Your task to perform on an android device: turn on location history Image 0: 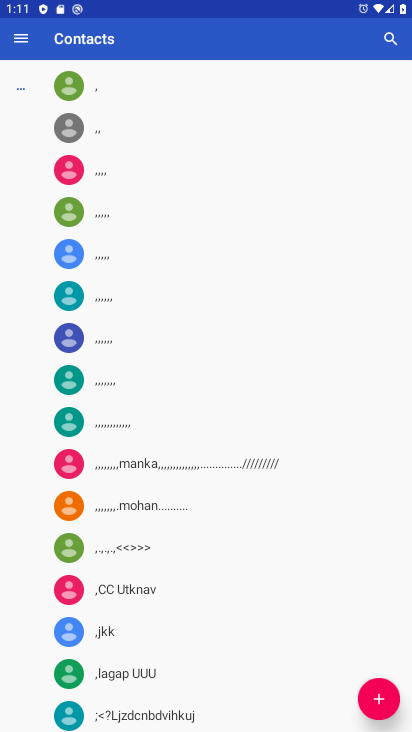
Step 0: press back button
Your task to perform on an android device: turn on location history Image 1: 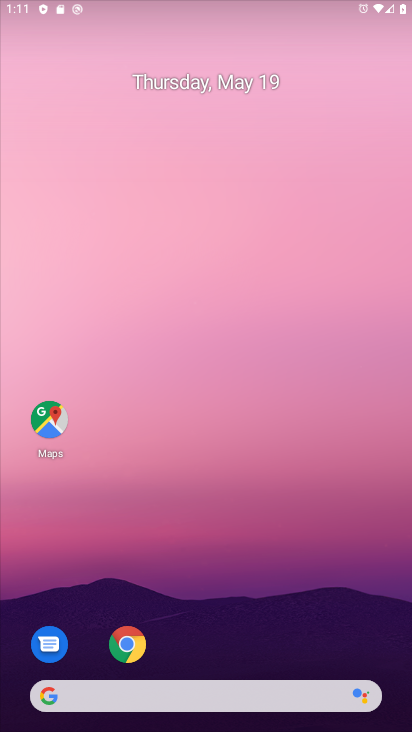
Step 1: drag from (247, 332) to (225, 15)
Your task to perform on an android device: turn on location history Image 2: 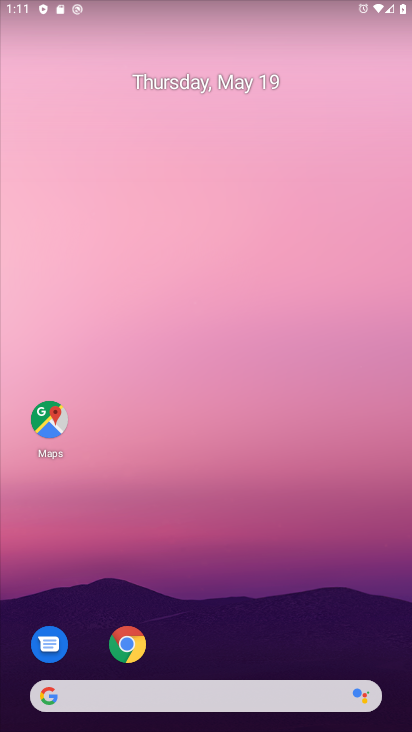
Step 2: drag from (206, 450) to (152, 27)
Your task to perform on an android device: turn on location history Image 3: 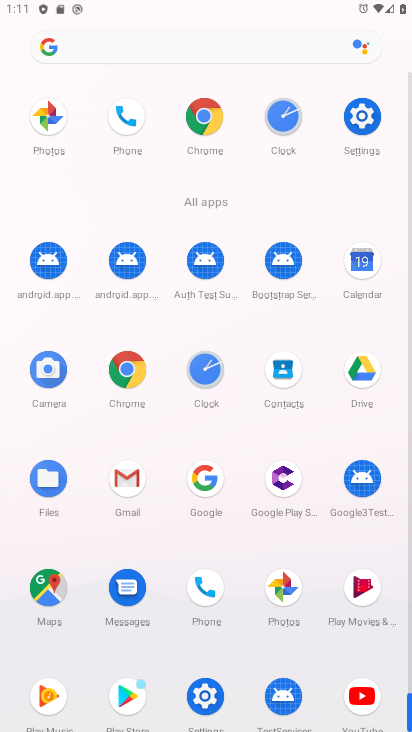
Step 3: drag from (284, 551) to (167, 153)
Your task to perform on an android device: turn on location history Image 4: 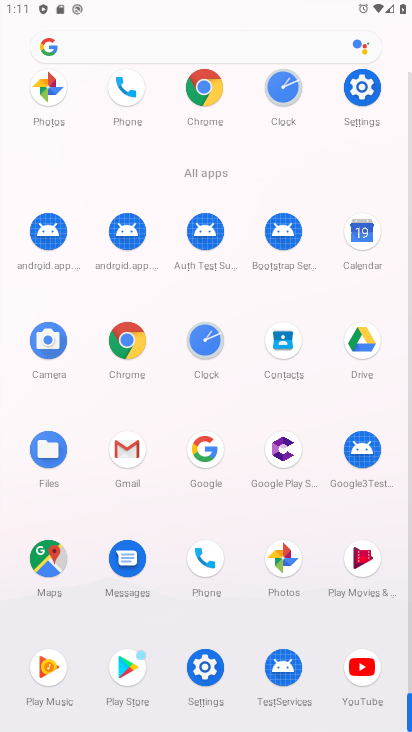
Step 4: click (44, 565)
Your task to perform on an android device: turn on location history Image 5: 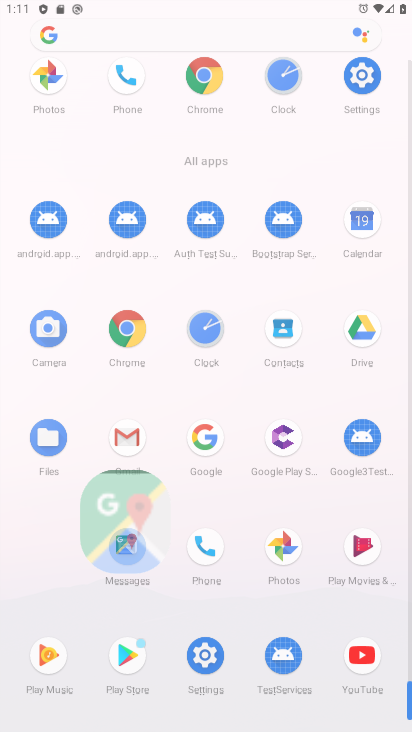
Step 5: click (44, 565)
Your task to perform on an android device: turn on location history Image 6: 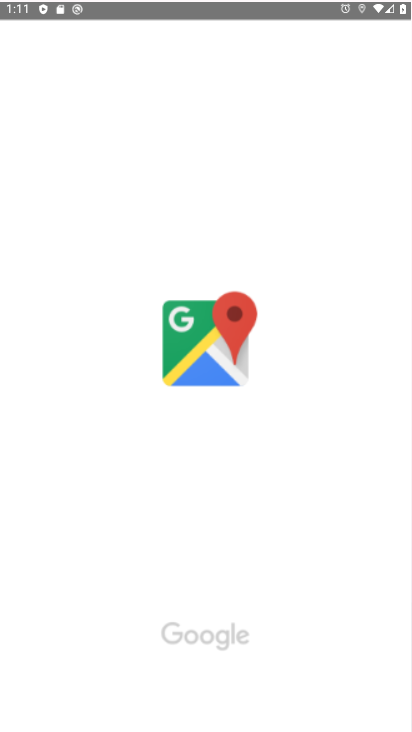
Step 6: click (45, 566)
Your task to perform on an android device: turn on location history Image 7: 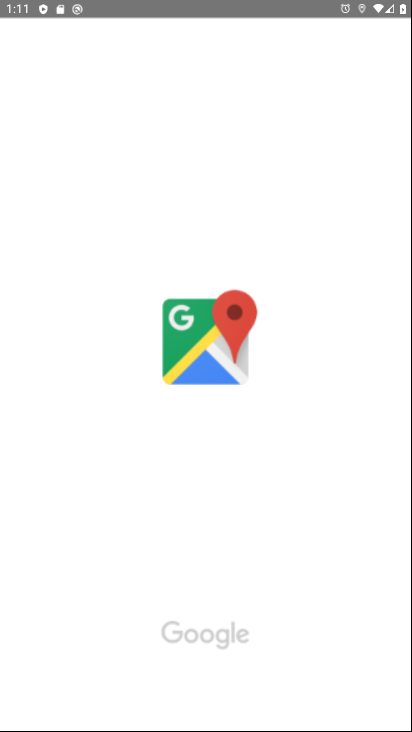
Step 7: click (45, 566)
Your task to perform on an android device: turn on location history Image 8: 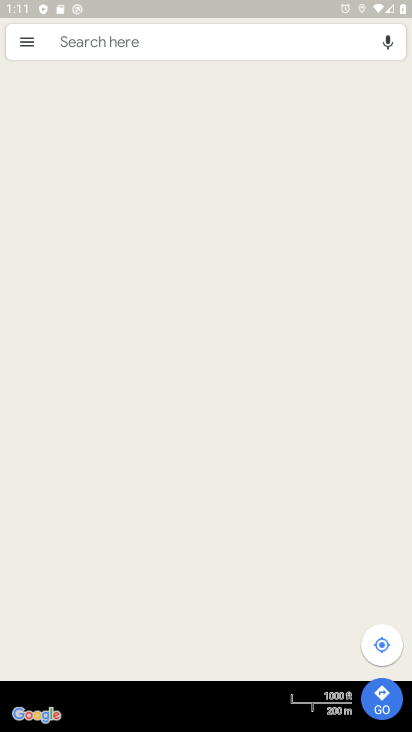
Step 8: drag from (227, 506) to (149, 13)
Your task to perform on an android device: turn on location history Image 9: 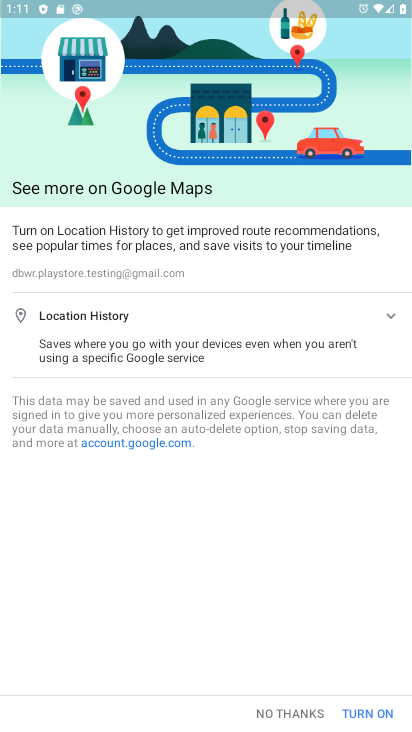
Step 9: click (360, 707)
Your task to perform on an android device: turn on location history Image 10: 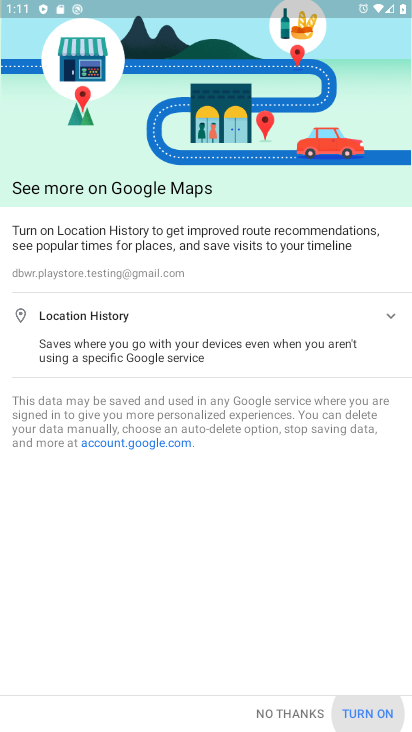
Step 10: click (360, 707)
Your task to perform on an android device: turn on location history Image 11: 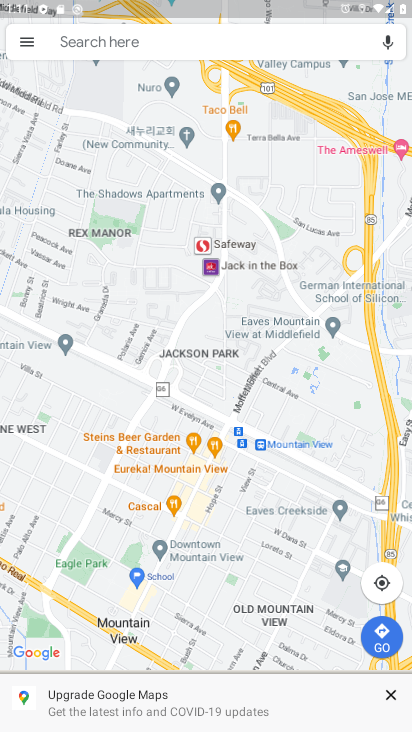
Step 11: click (68, 36)
Your task to perform on an android device: turn on location history Image 12: 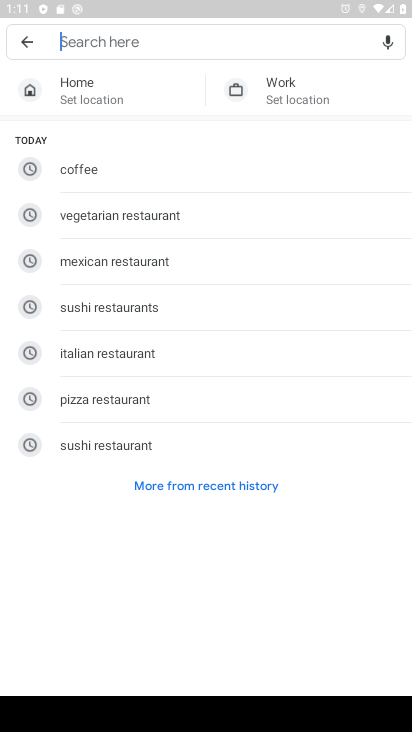
Step 12: click (66, 37)
Your task to perform on an android device: turn on location history Image 13: 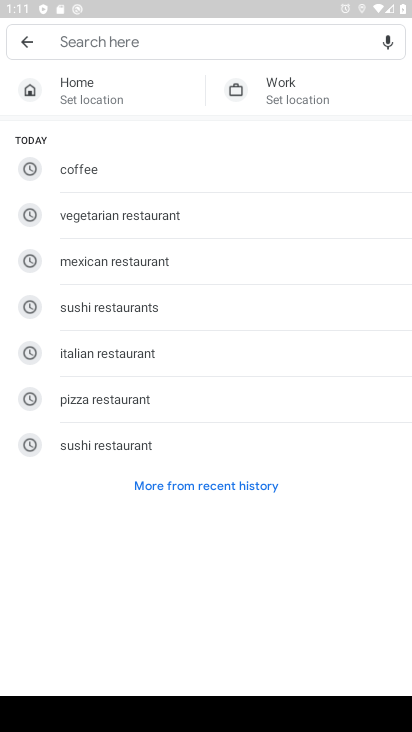
Step 13: click (22, 39)
Your task to perform on an android device: turn on location history Image 14: 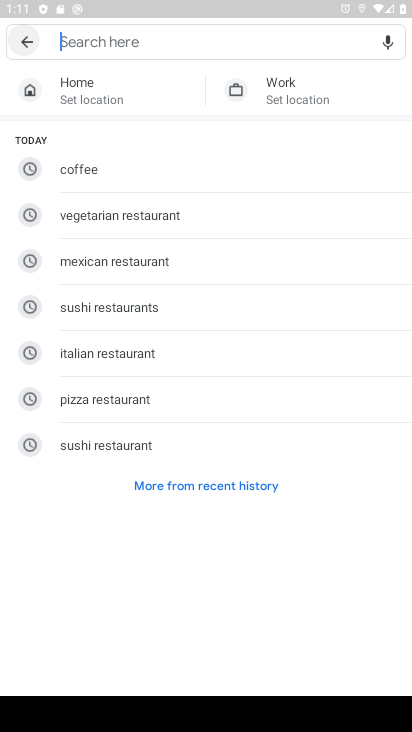
Step 14: click (22, 39)
Your task to perform on an android device: turn on location history Image 15: 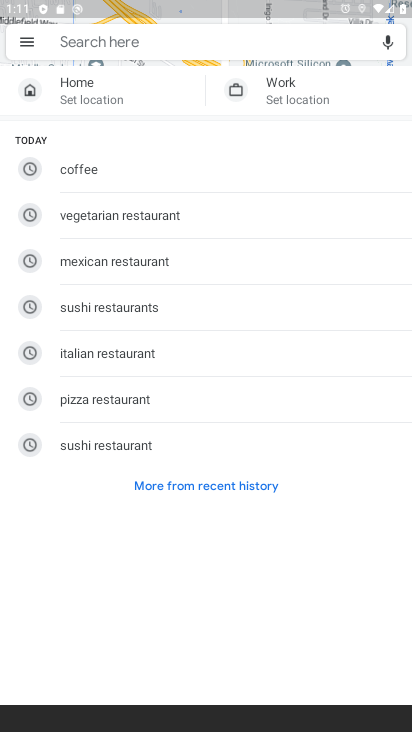
Step 15: click (23, 40)
Your task to perform on an android device: turn on location history Image 16: 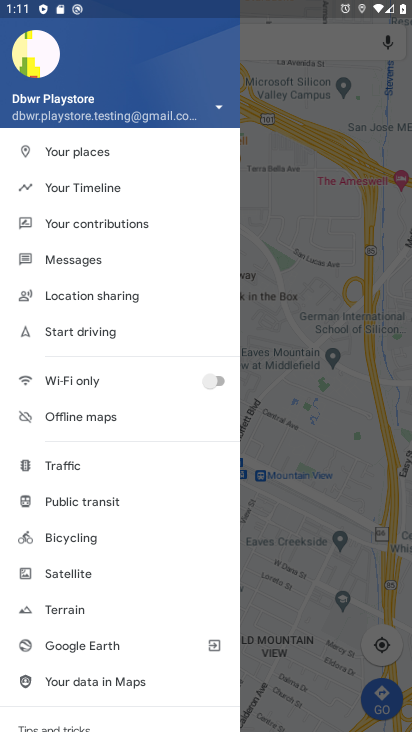
Step 16: click (106, 186)
Your task to perform on an android device: turn on location history Image 17: 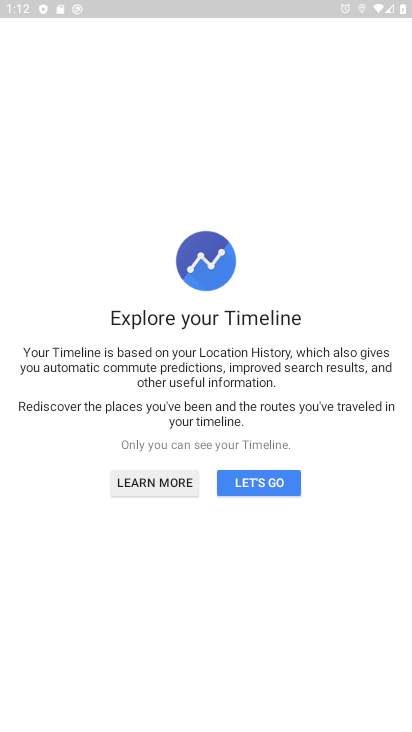
Step 17: click (255, 478)
Your task to perform on an android device: turn on location history Image 18: 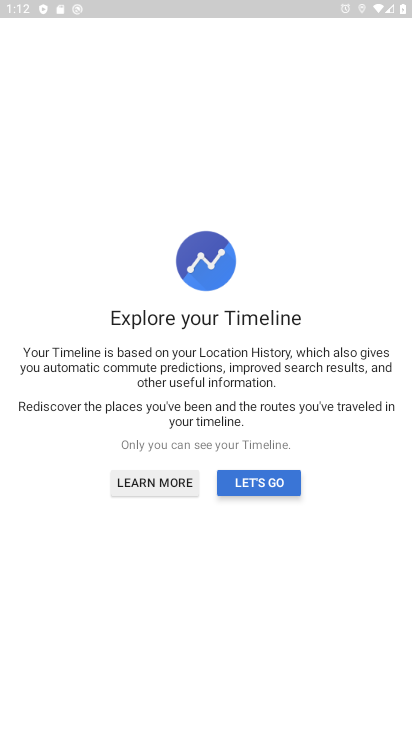
Step 18: click (255, 479)
Your task to perform on an android device: turn on location history Image 19: 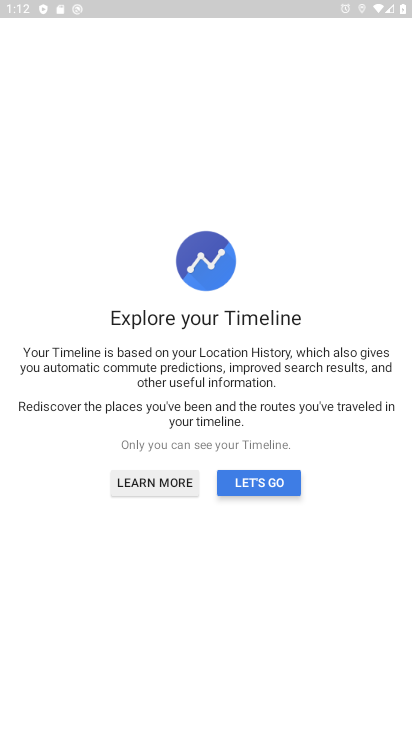
Step 19: click (256, 480)
Your task to perform on an android device: turn on location history Image 20: 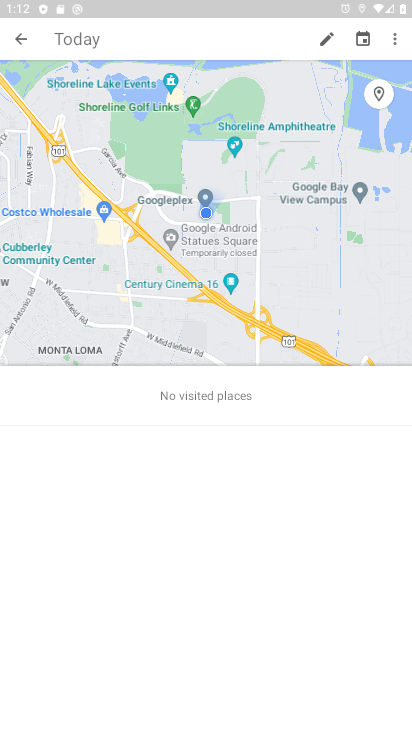
Step 20: click (14, 33)
Your task to perform on an android device: turn on location history Image 21: 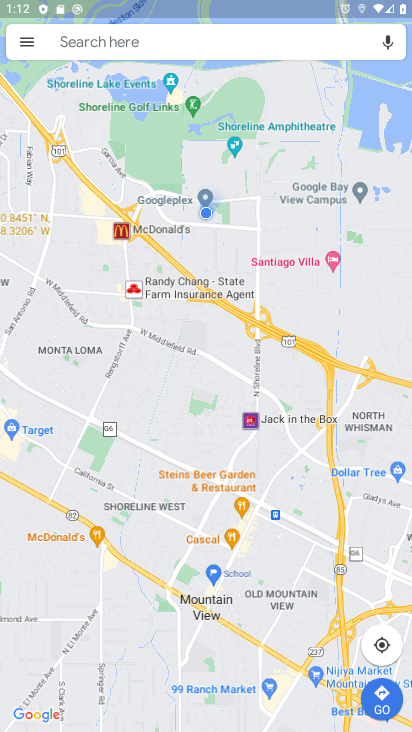
Step 21: click (17, 25)
Your task to perform on an android device: turn on location history Image 22: 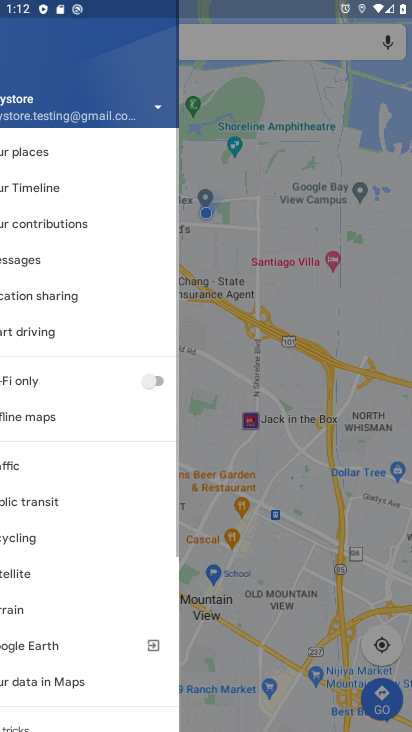
Step 22: click (18, 38)
Your task to perform on an android device: turn on location history Image 23: 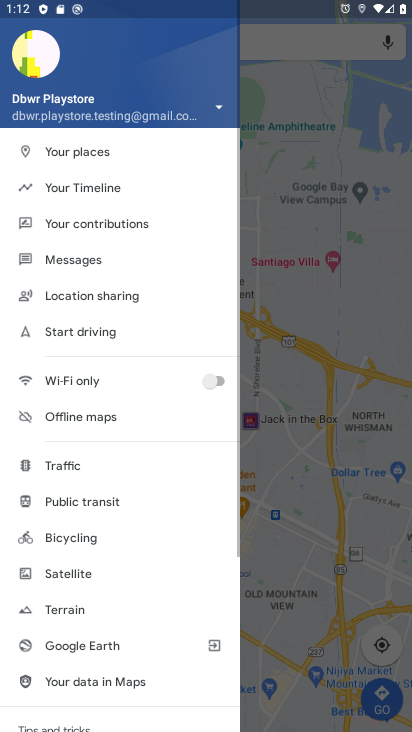
Step 23: click (81, 185)
Your task to perform on an android device: turn on location history Image 24: 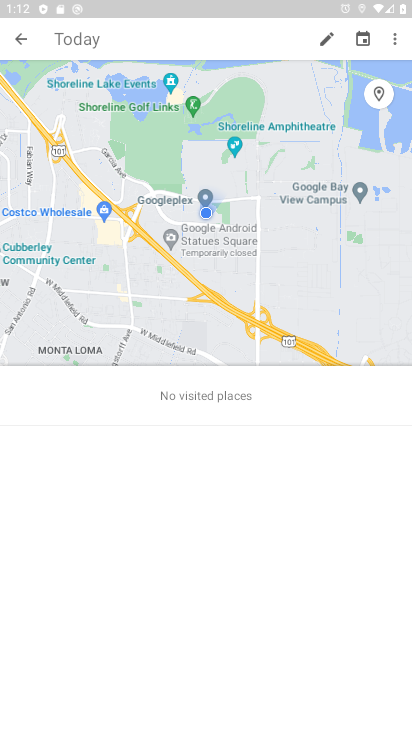
Step 24: click (23, 41)
Your task to perform on an android device: turn on location history Image 25: 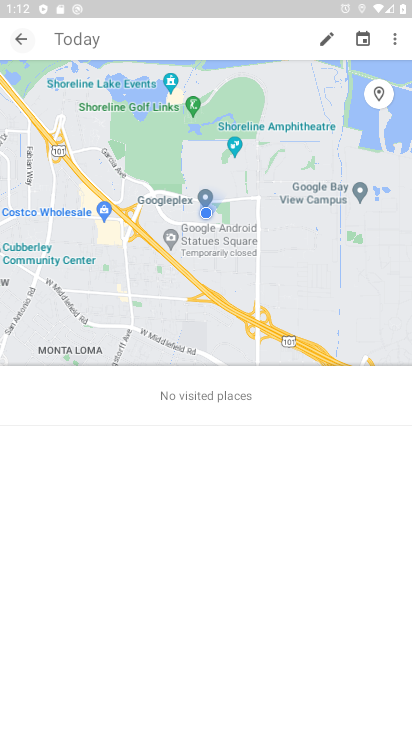
Step 25: click (23, 39)
Your task to perform on an android device: turn on location history Image 26: 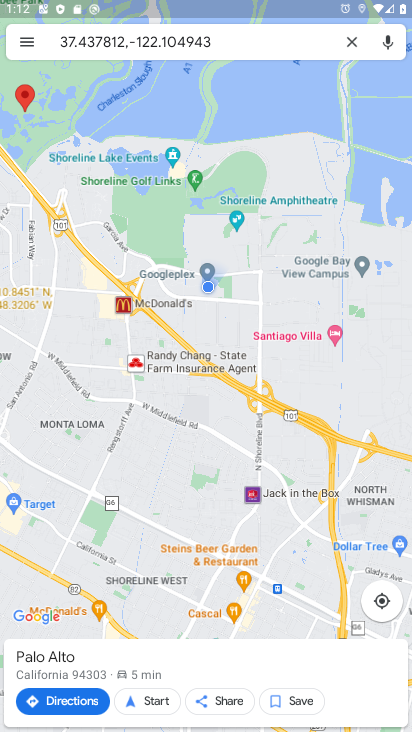
Step 26: click (27, 42)
Your task to perform on an android device: turn on location history Image 27: 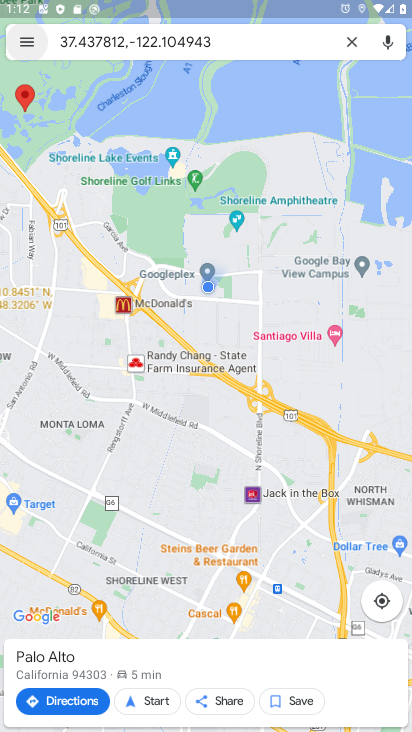
Step 27: click (26, 44)
Your task to perform on an android device: turn on location history Image 28: 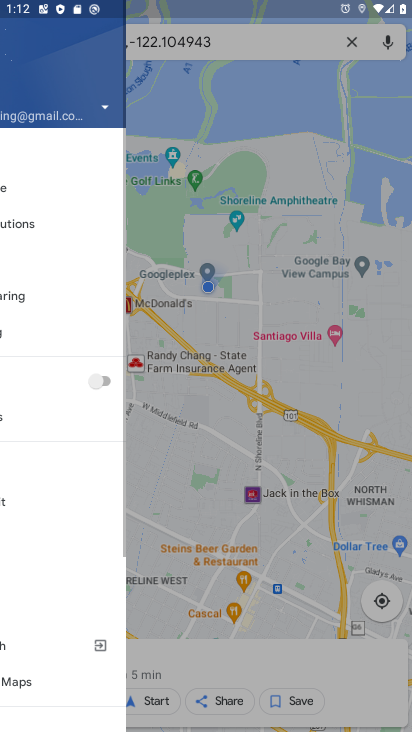
Step 28: click (26, 44)
Your task to perform on an android device: turn on location history Image 29: 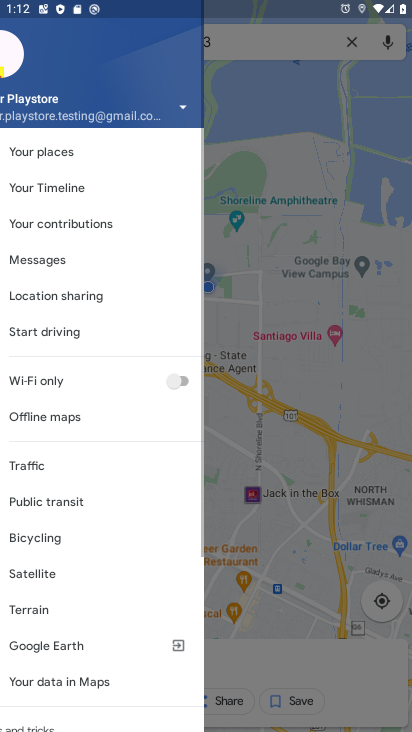
Step 29: click (26, 44)
Your task to perform on an android device: turn on location history Image 30: 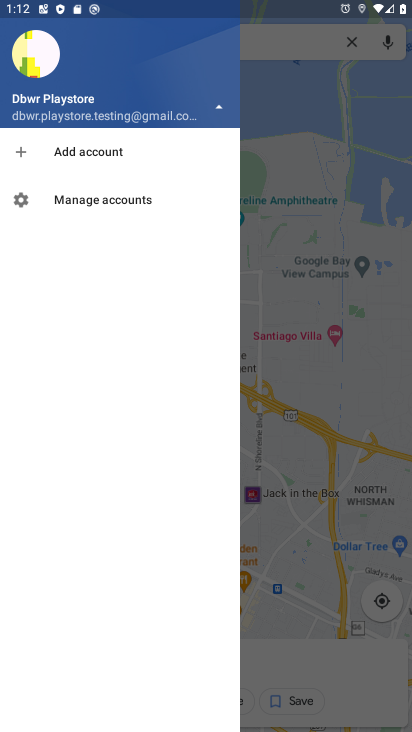
Step 30: click (214, 106)
Your task to perform on an android device: turn on location history Image 31: 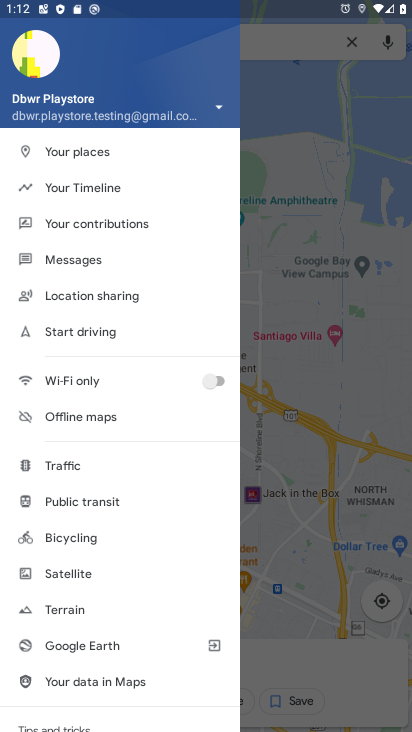
Step 31: click (79, 184)
Your task to perform on an android device: turn on location history Image 32: 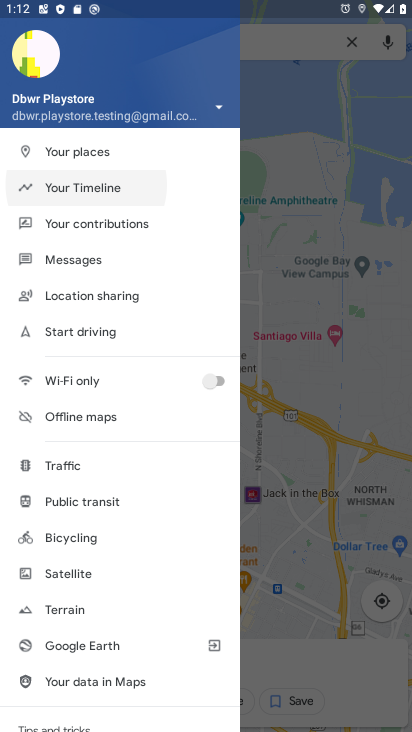
Step 32: click (79, 184)
Your task to perform on an android device: turn on location history Image 33: 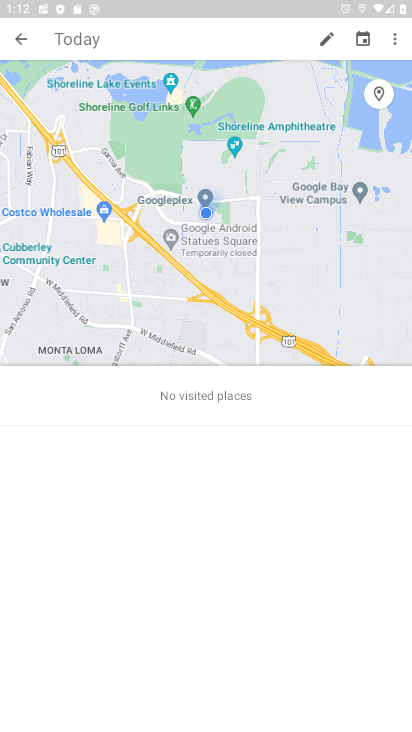
Step 33: click (393, 39)
Your task to perform on an android device: turn on location history Image 34: 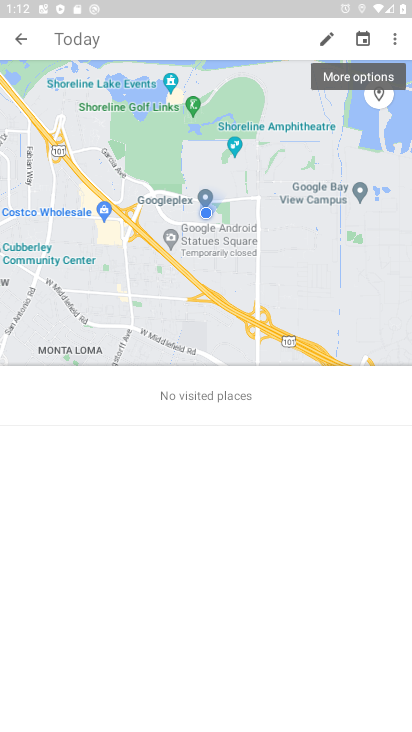
Step 34: click (395, 37)
Your task to perform on an android device: turn on location history Image 35: 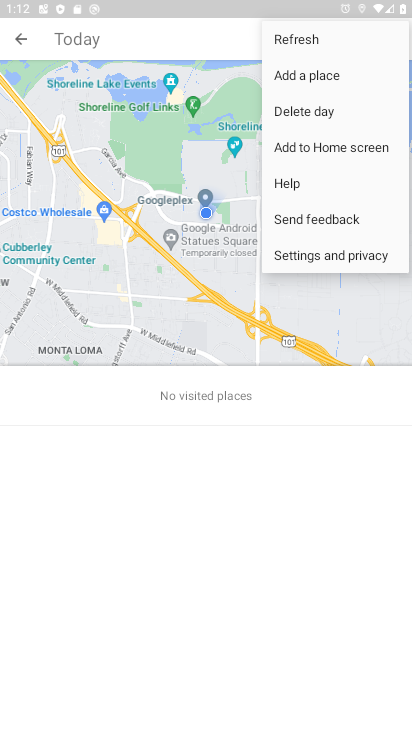
Step 35: click (293, 252)
Your task to perform on an android device: turn on location history Image 36: 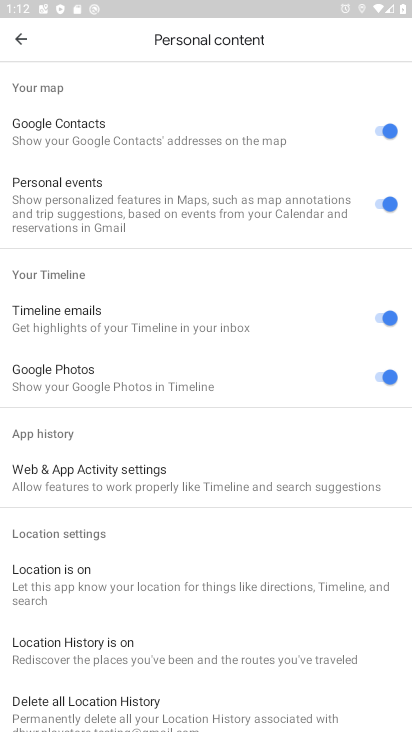
Step 36: drag from (138, 238) to (163, 125)
Your task to perform on an android device: turn on location history Image 37: 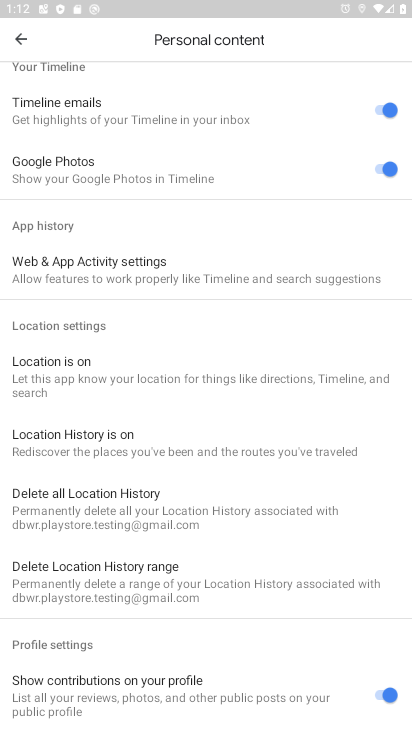
Step 37: click (53, 441)
Your task to perform on an android device: turn on location history Image 38: 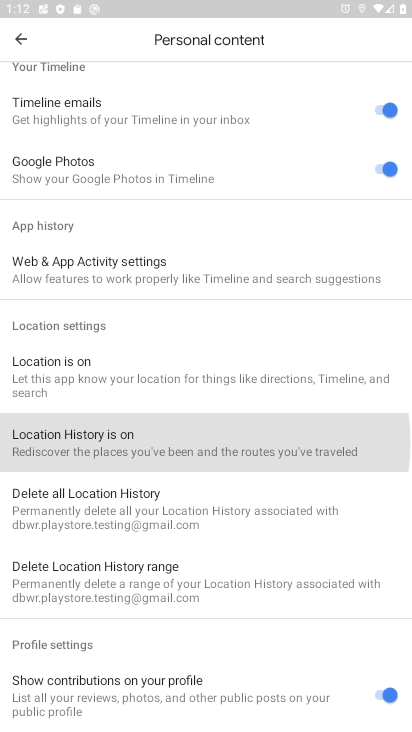
Step 38: click (52, 442)
Your task to perform on an android device: turn on location history Image 39: 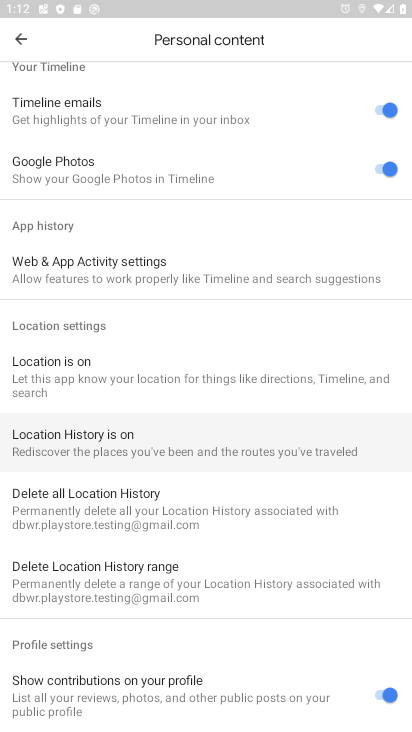
Step 39: click (53, 444)
Your task to perform on an android device: turn on location history Image 40: 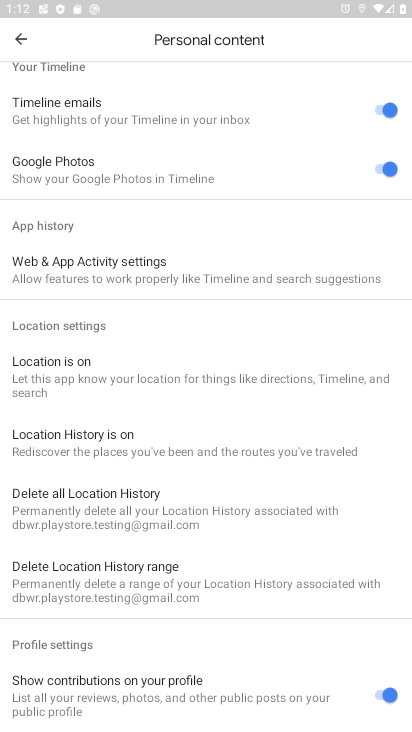
Step 40: click (53, 444)
Your task to perform on an android device: turn on location history Image 41: 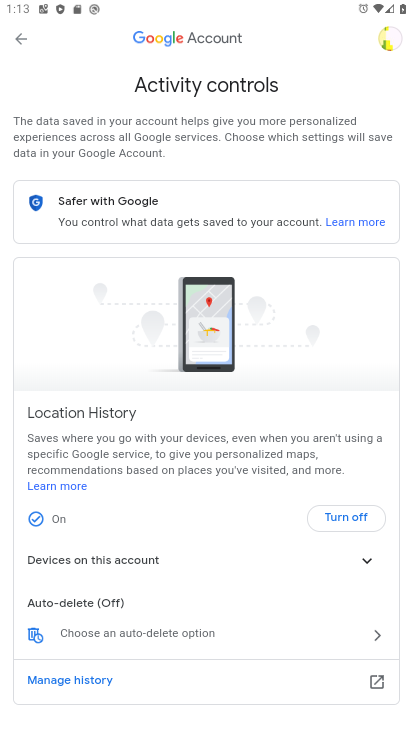
Step 41: task complete